Your task to perform on an android device: Open Wikipedia Image 0: 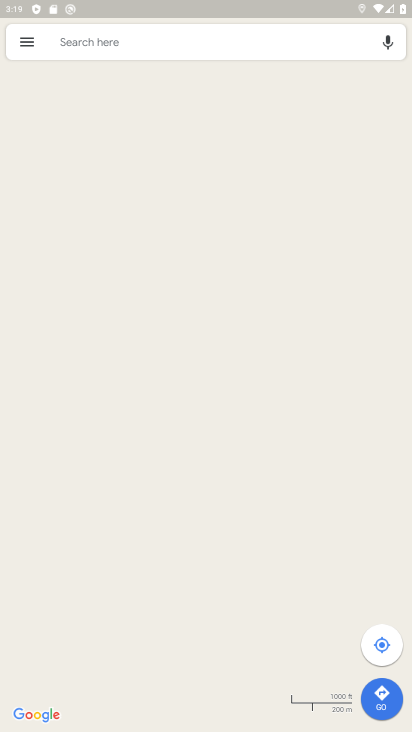
Step 0: press home button
Your task to perform on an android device: Open Wikipedia Image 1: 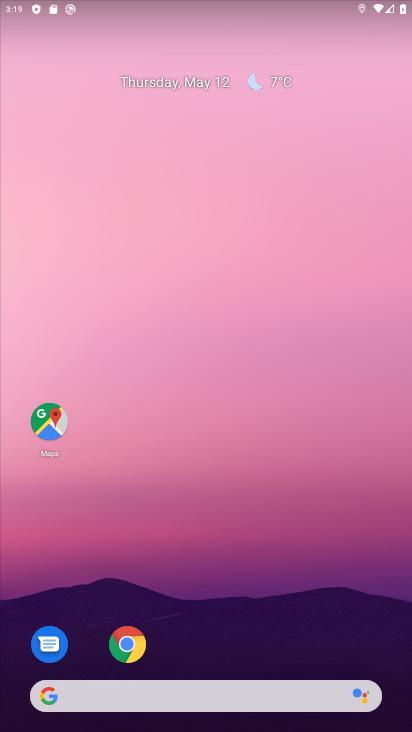
Step 1: click (124, 641)
Your task to perform on an android device: Open Wikipedia Image 2: 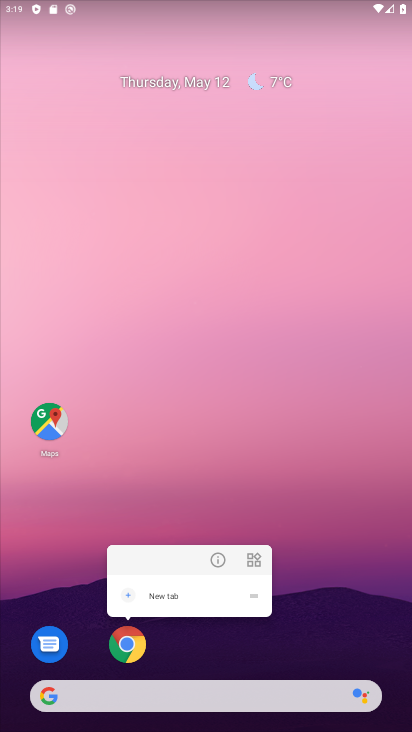
Step 2: click (129, 646)
Your task to perform on an android device: Open Wikipedia Image 3: 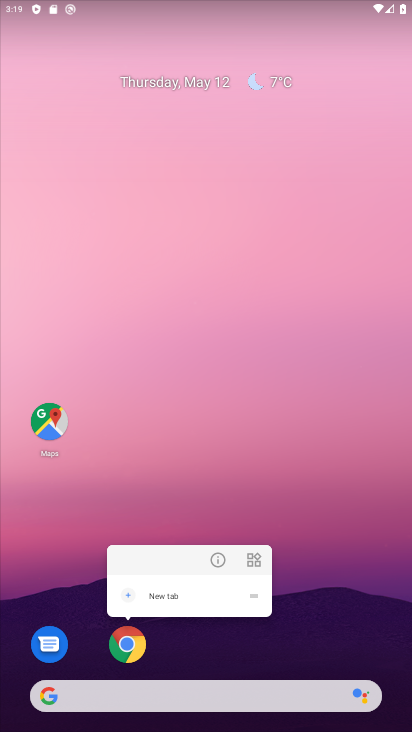
Step 3: click (233, 648)
Your task to perform on an android device: Open Wikipedia Image 4: 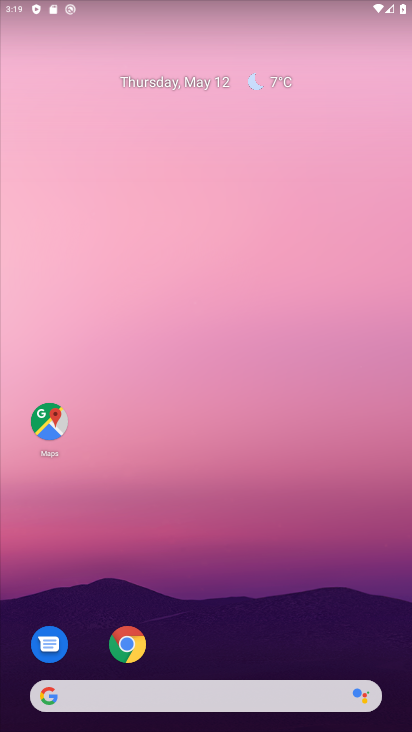
Step 4: click (128, 649)
Your task to perform on an android device: Open Wikipedia Image 5: 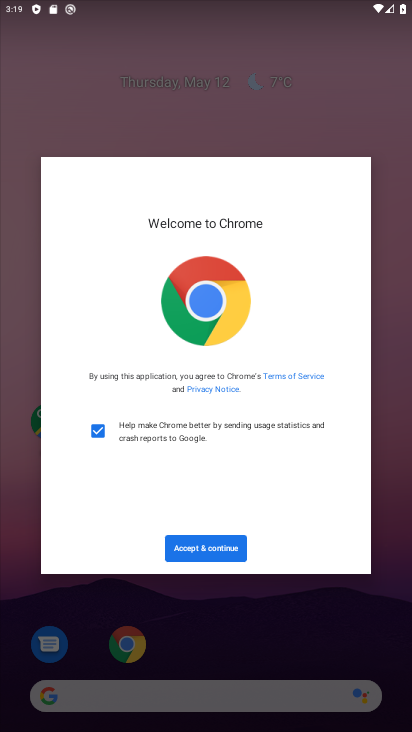
Step 5: click (201, 542)
Your task to perform on an android device: Open Wikipedia Image 6: 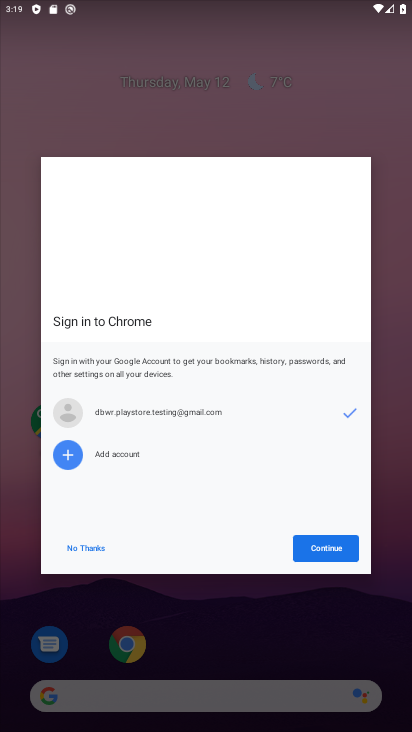
Step 6: click (312, 549)
Your task to perform on an android device: Open Wikipedia Image 7: 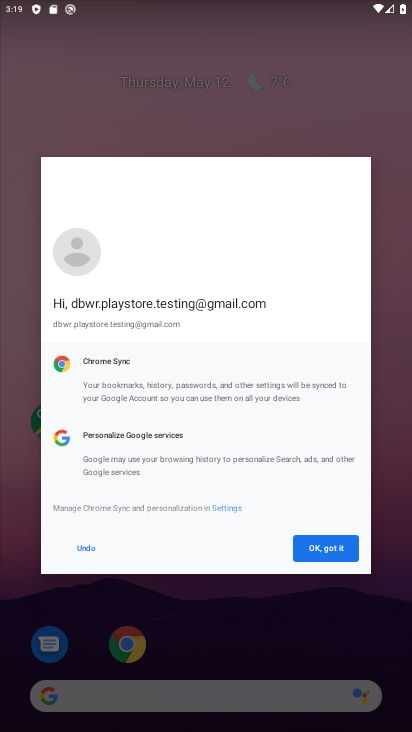
Step 7: click (312, 549)
Your task to perform on an android device: Open Wikipedia Image 8: 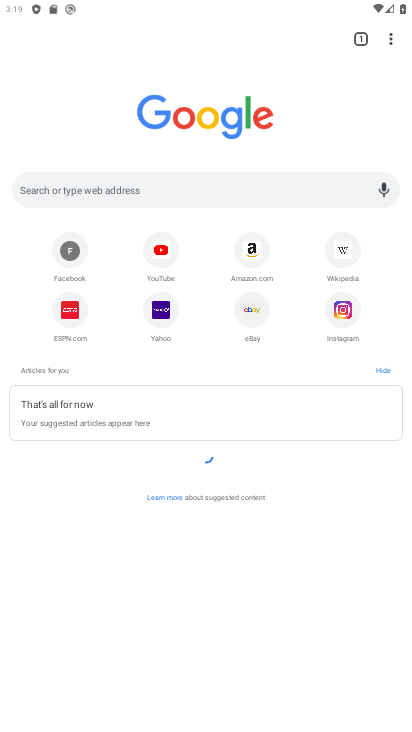
Step 8: click (338, 254)
Your task to perform on an android device: Open Wikipedia Image 9: 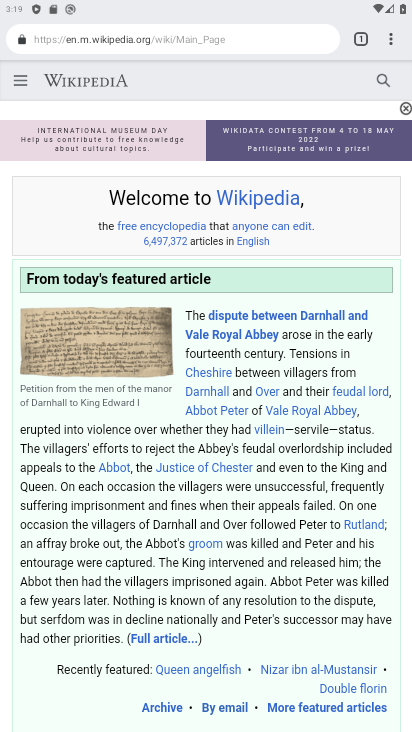
Step 9: task complete